Your task to perform on an android device: Turn off the flashlight Image 0: 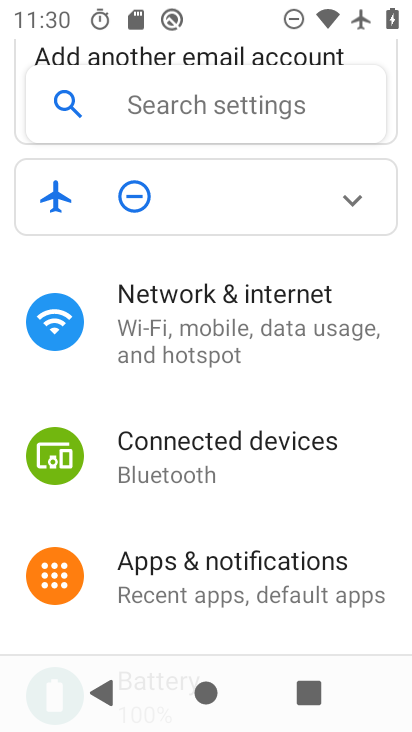
Step 0: drag from (249, 529) to (265, 300)
Your task to perform on an android device: Turn off the flashlight Image 1: 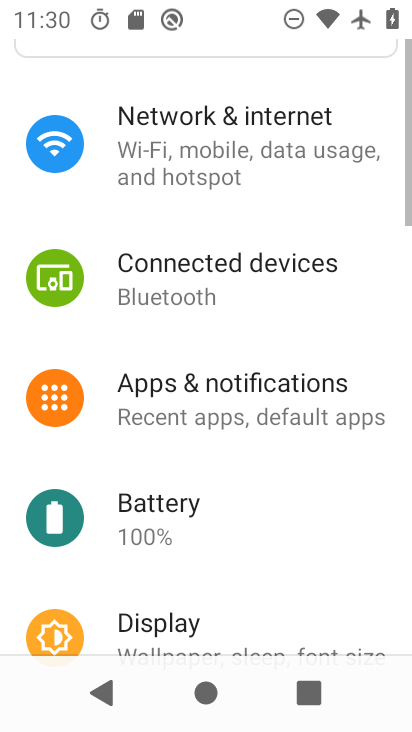
Step 1: task complete